Your task to perform on an android device: open chrome and create a bookmark for the current page Image 0: 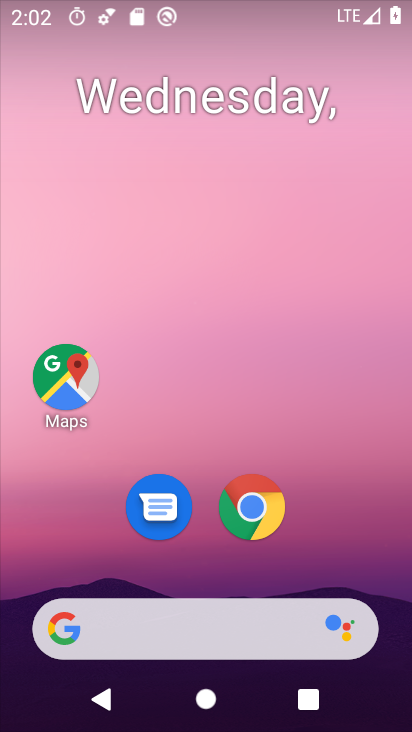
Step 0: click (253, 509)
Your task to perform on an android device: open chrome and create a bookmark for the current page Image 1: 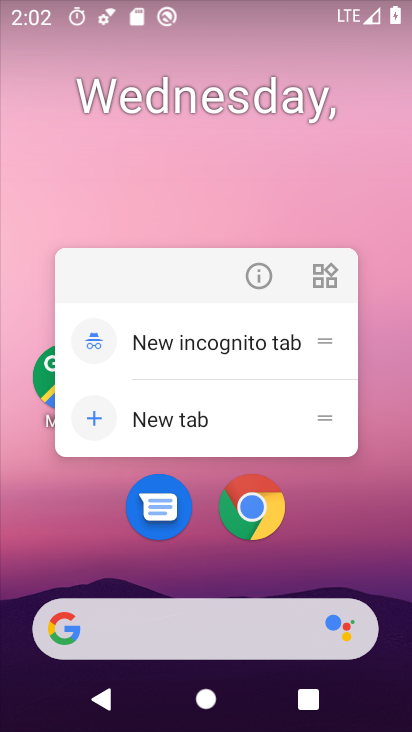
Step 1: click (253, 509)
Your task to perform on an android device: open chrome and create a bookmark for the current page Image 2: 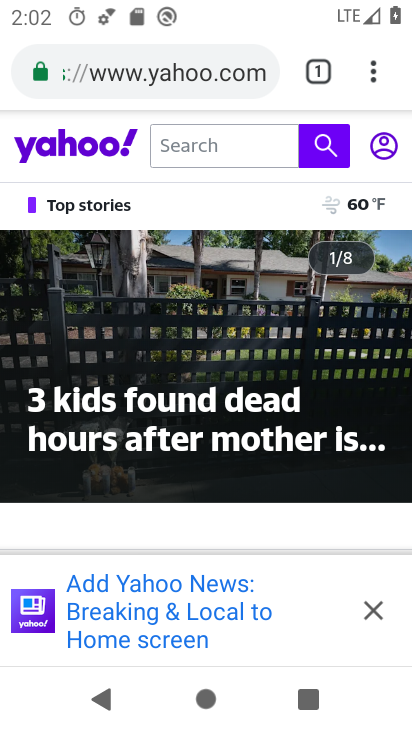
Step 2: click (371, 67)
Your task to perform on an android device: open chrome and create a bookmark for the current page Image 3: 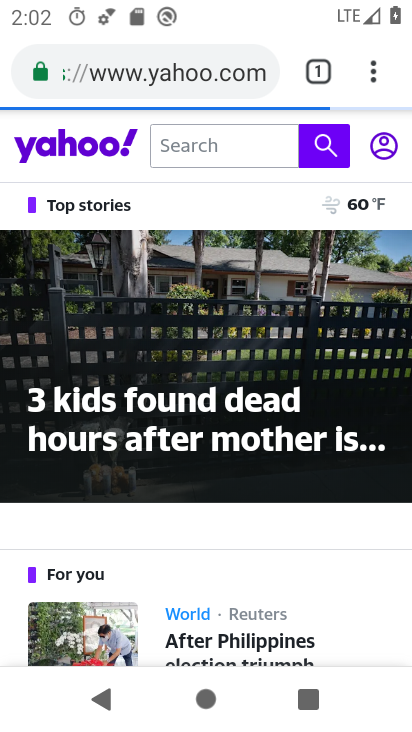
Step 3: click (371, 67)
Your task to perform on an android device: open chrome and create a bookmark for the current page Image 4: 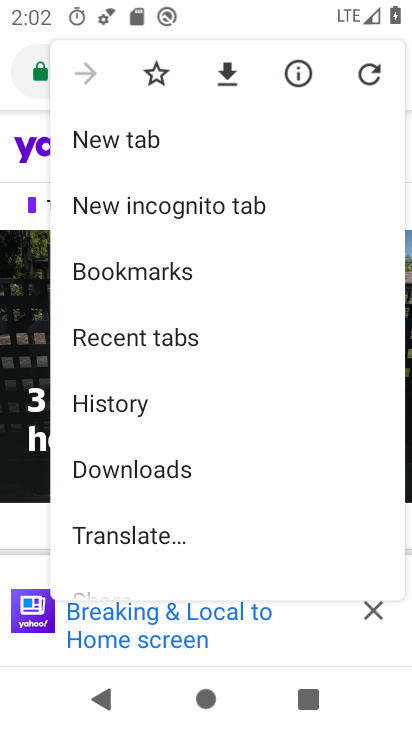
Step 4: click (147, 78)
Your task to perform on an android device: open chrome and create a bookmark for the current page Image 5: 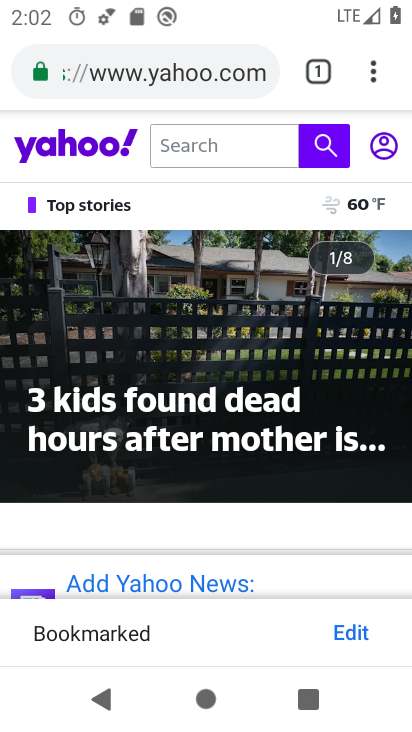
Step 5: task complete